Your task to perform on an android device: install app "The Home Depot" Image 0: 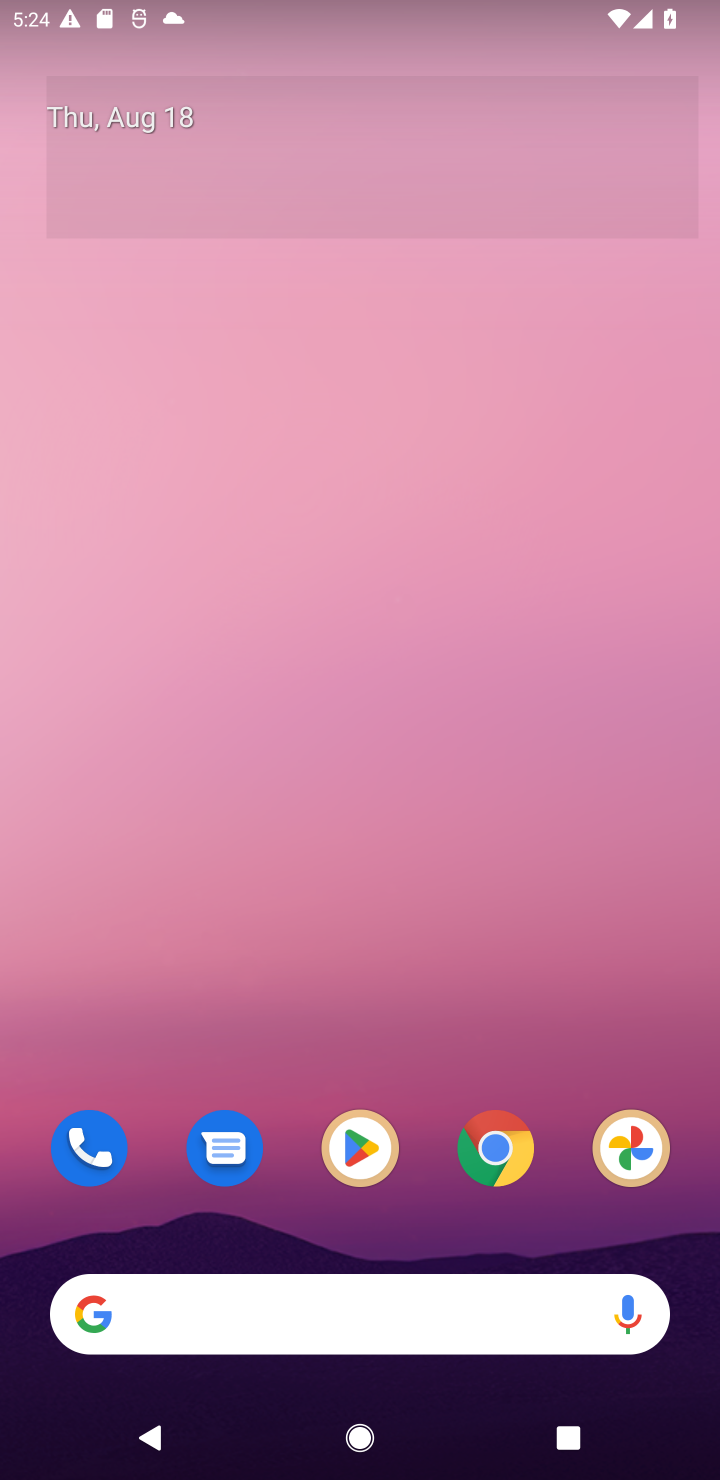
Step 0: drag from (464, 1199) to (490, 303)
Your task to perform on an android device: install app "The Home Depot" Image 1: 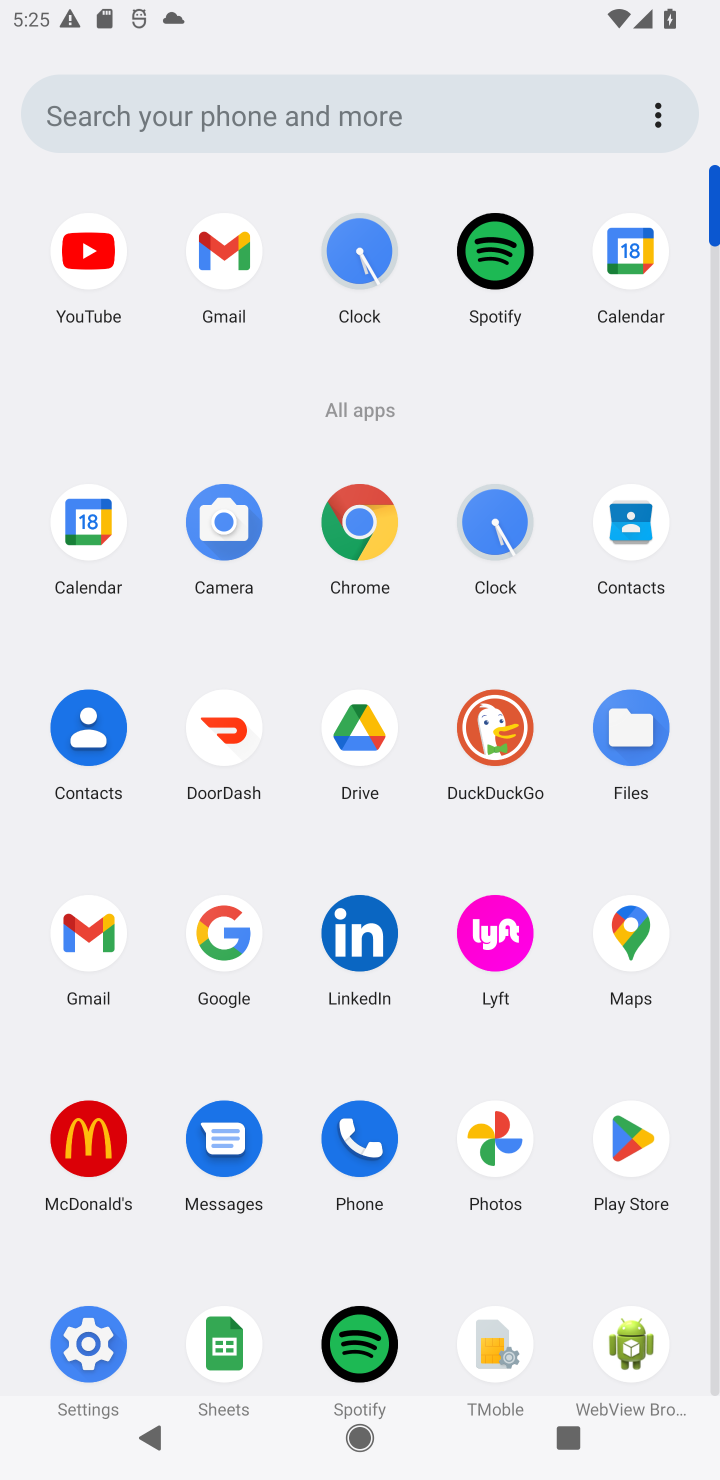
Step 1: click (620, 1129)
Your task to perform on an android device: install app "The Home Depot" Image 2: 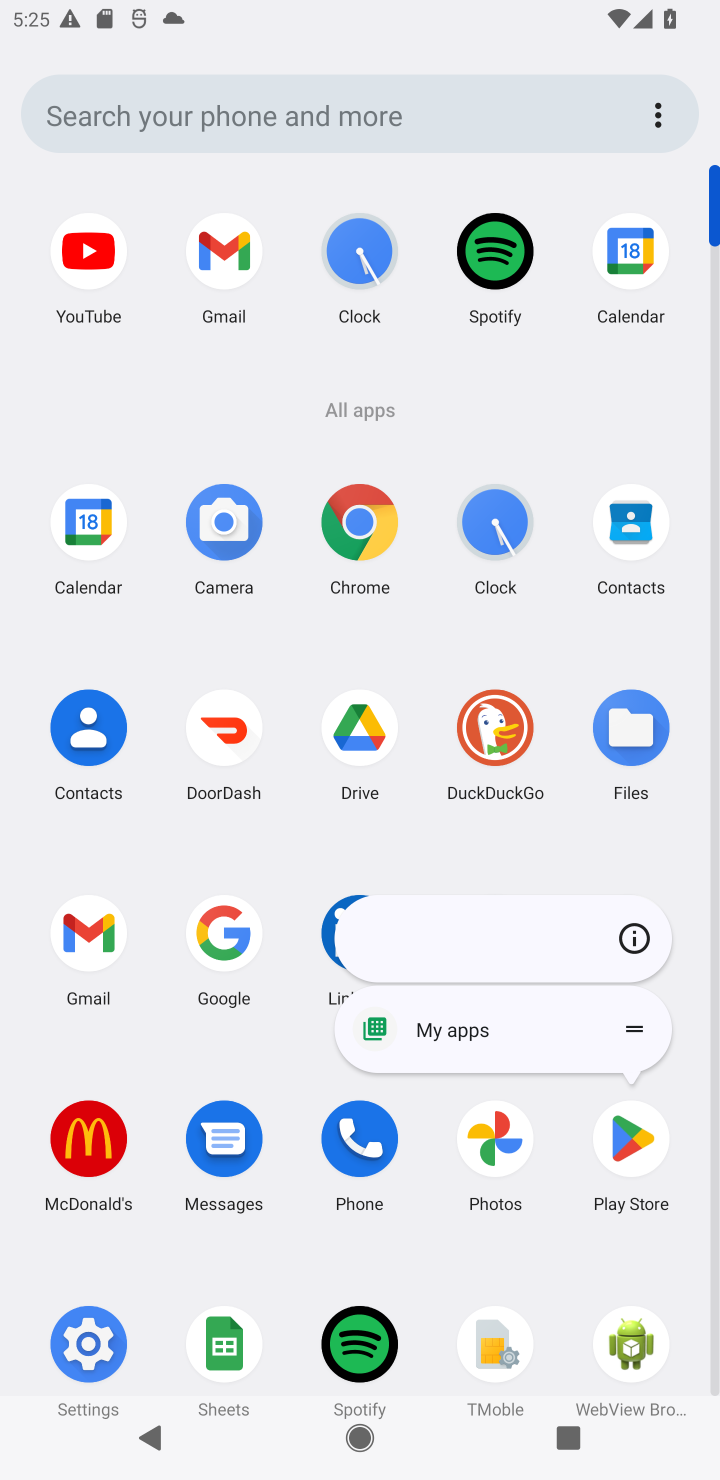
Step 2: click (622, 1127)
Your task to perform on an android device: install app "The Home Depot" Image 3: 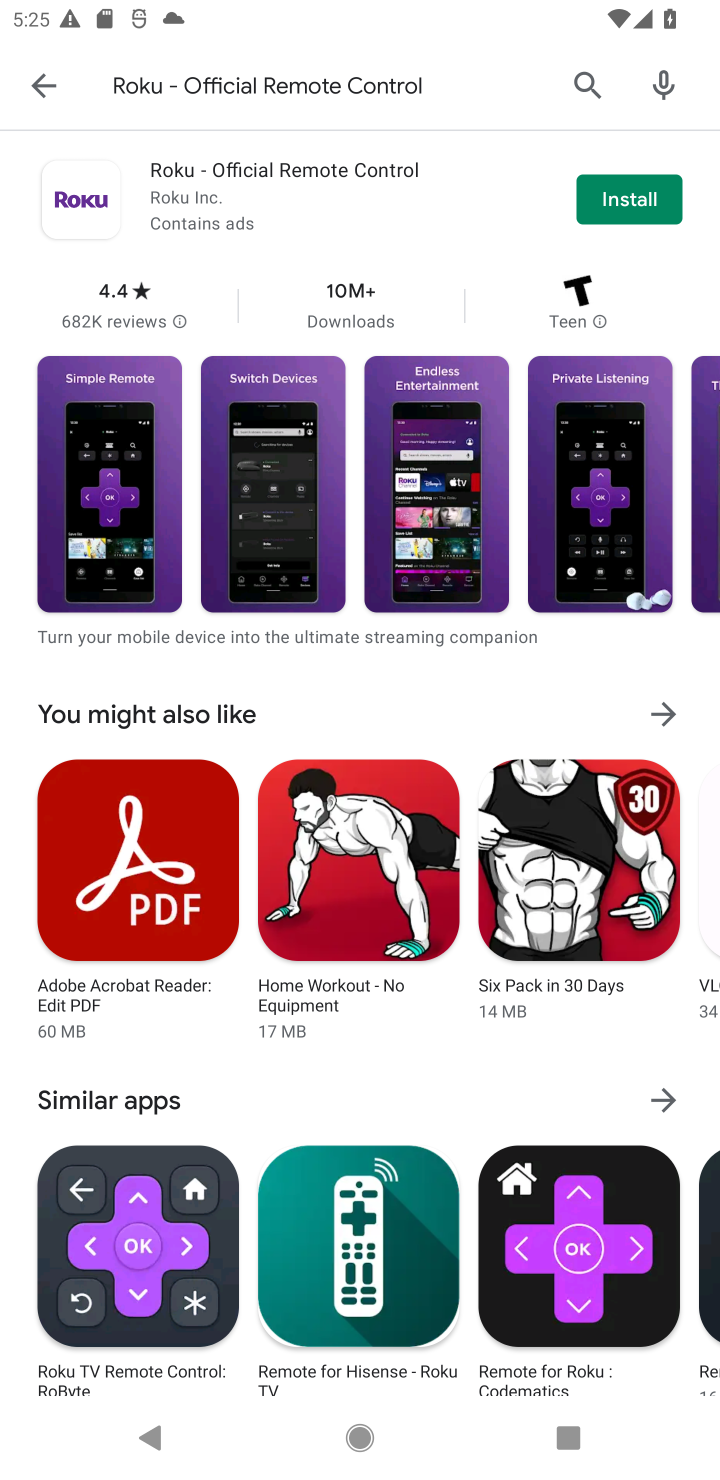
Step 3: press back button
Your task to perform on an android device: install app "The Home Depot" Image 4: 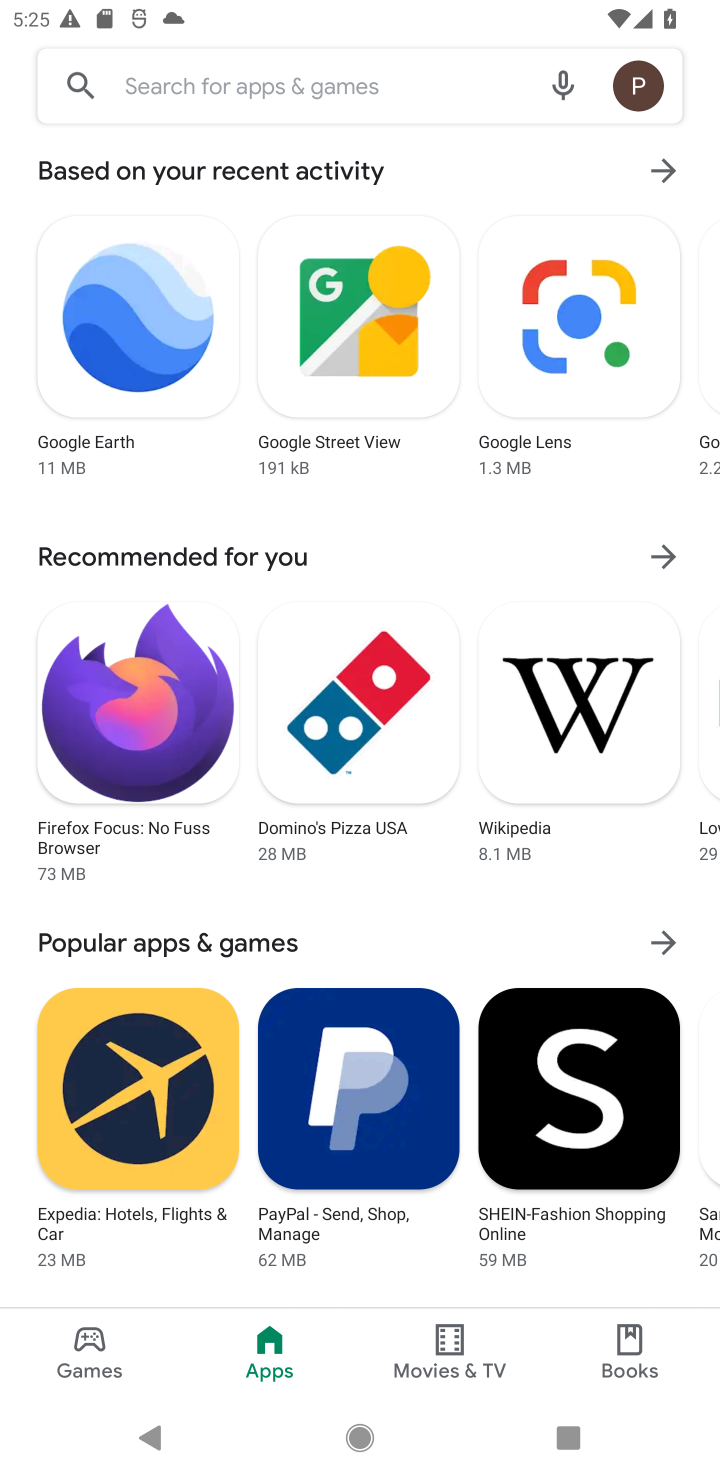
Step 4: click (140, 110)
Your task to perform on an android device: install app "The Home Depot" Image 5: 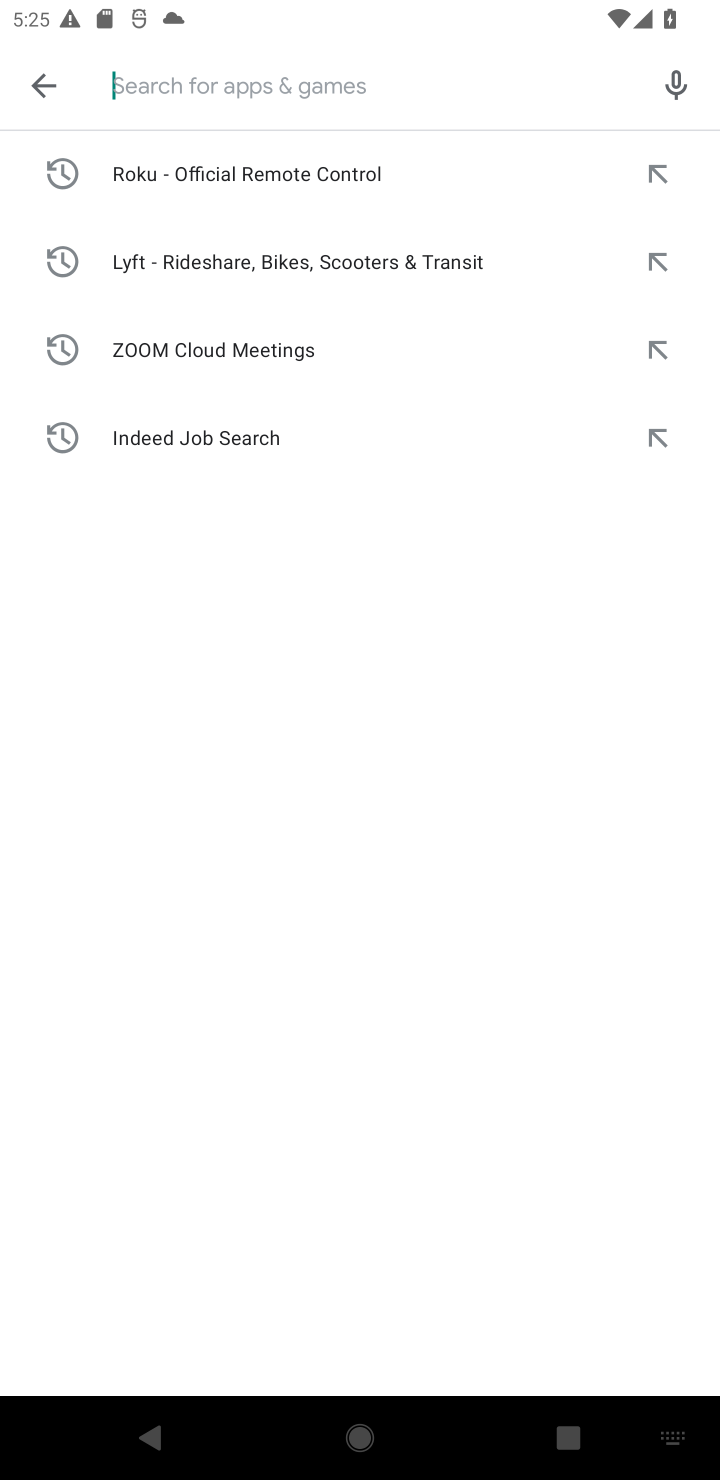
Step 5: type "The Home Depot"
Your task to perform on an android device: install app "The Home Depot" Image 6: 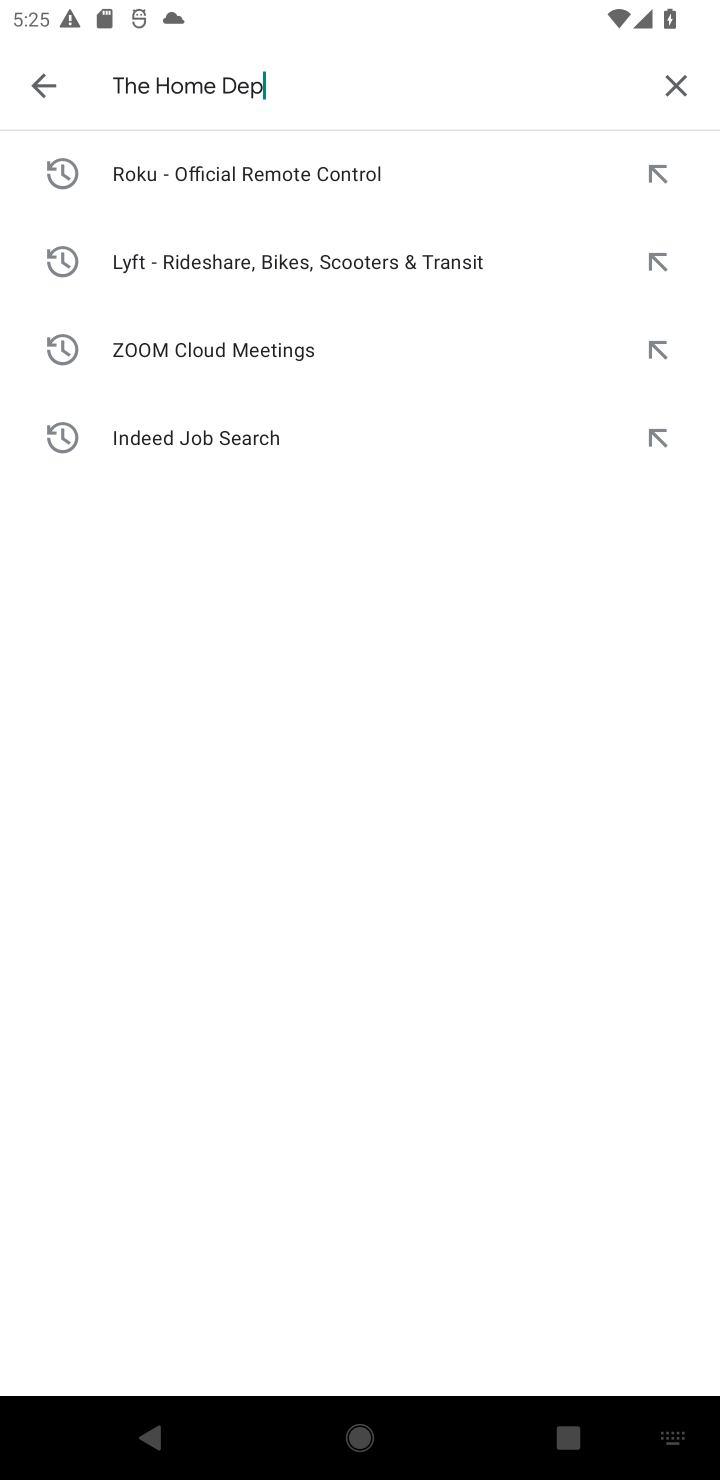
Step 6: press enter
Your task to perform on an android device: install app "The Home Depot" Image 7: 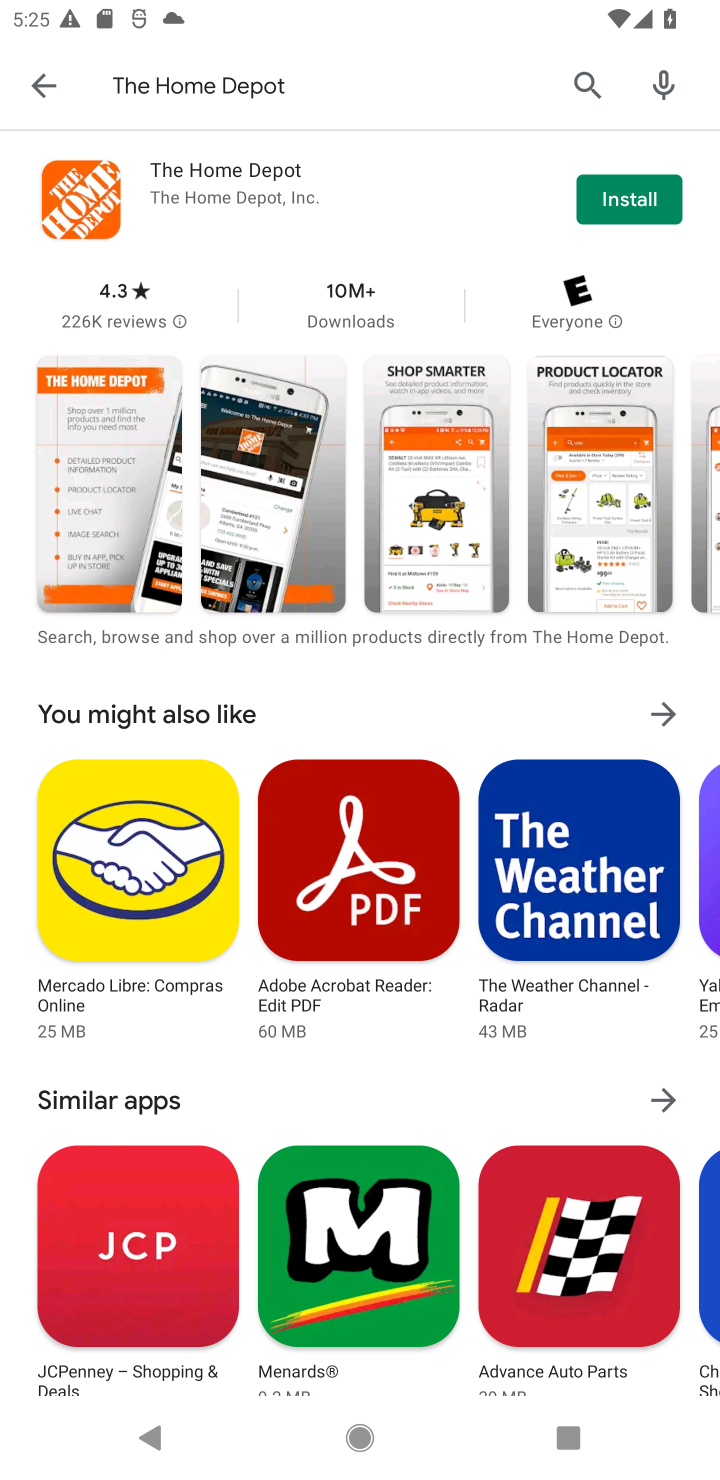
Step 7: click (631, 198)
Your task to perform on an android device: install app "The Home Depot" Image 8: 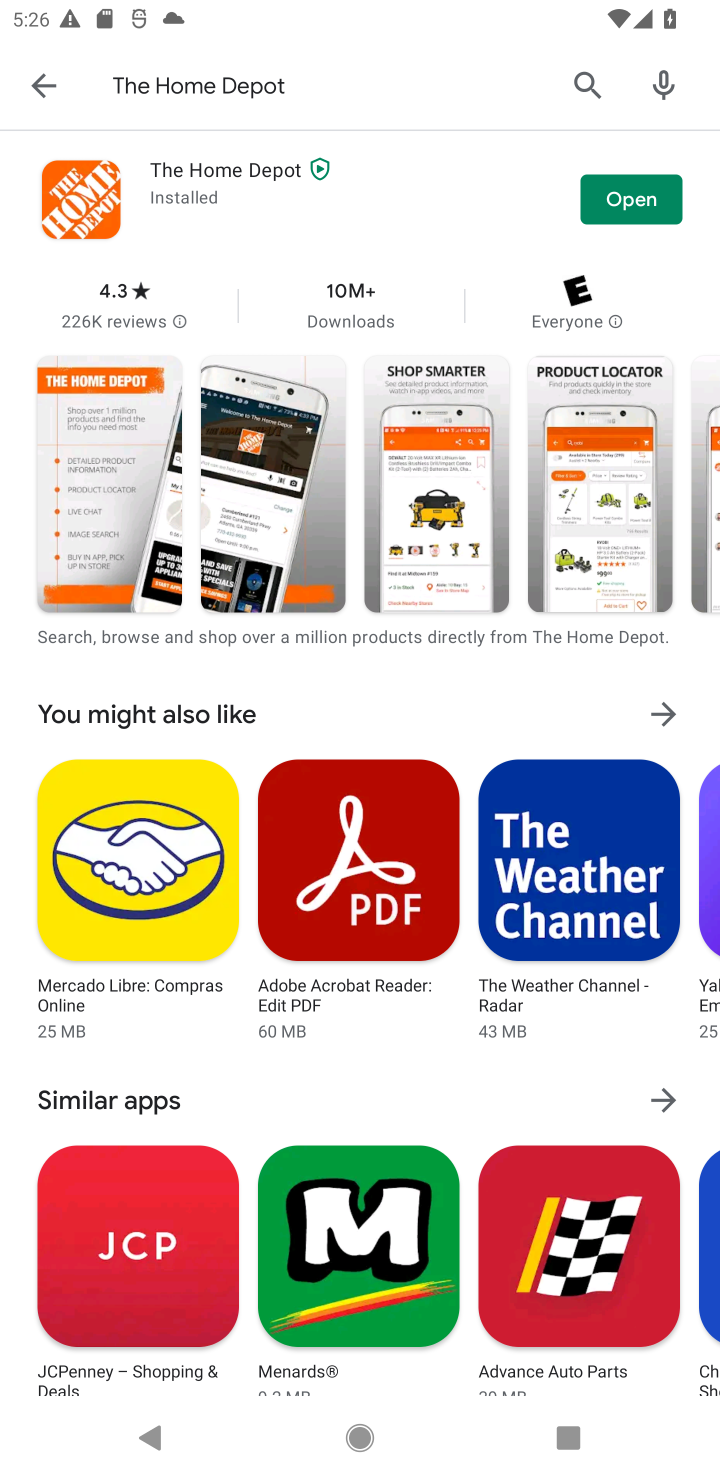
Step 8: click (587, 192)
Your task to perform on an android device: install app "The Home Depot" Image 9: 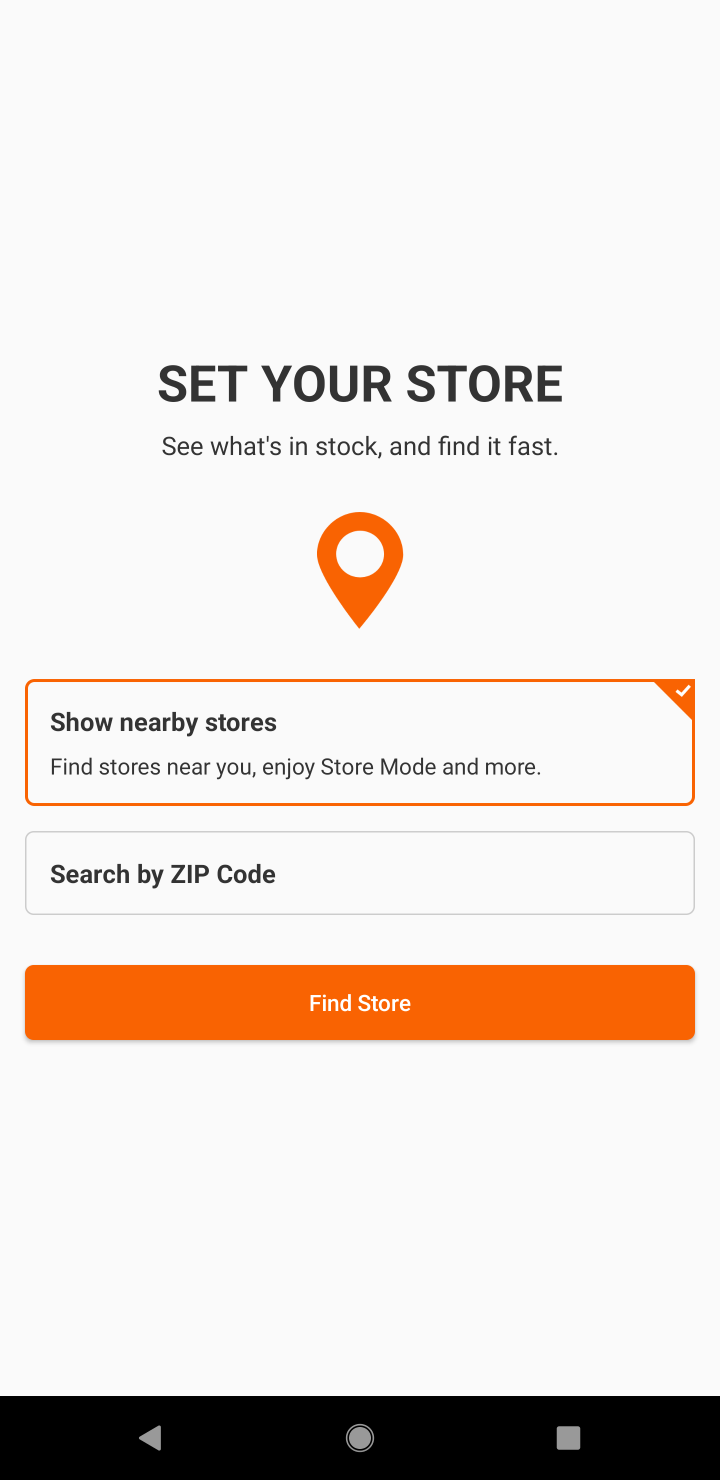
Step 9: task complete